Your task to perform on an android device: Go to Google Image 0: 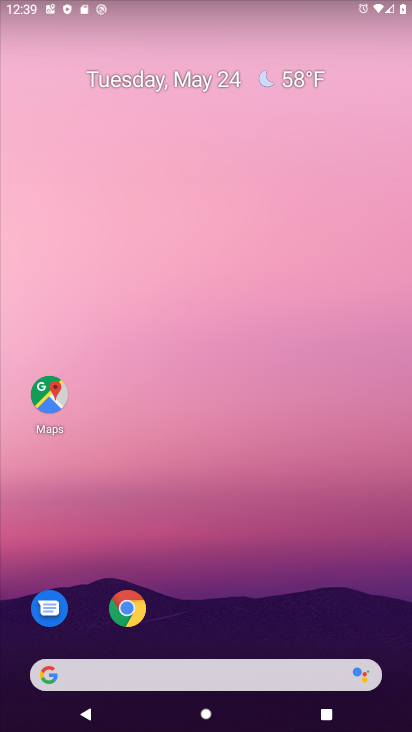
Step 0: drag from (265, 695) to (262, 85)
Your task to perform on an android device: Go to Google Image 1: 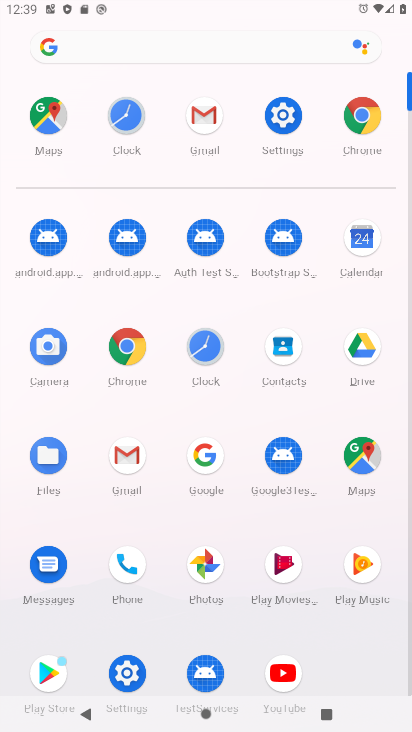
Step 1: click (48, 52)
Your task to perform on an android device: Go to Google Image 2: 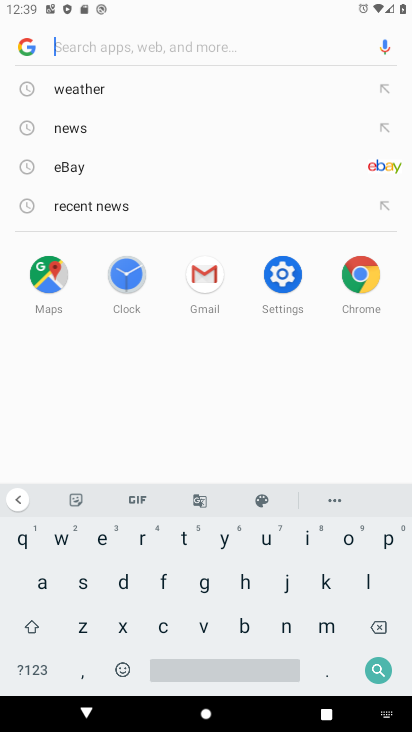
Step 2: click (32, 45)
Your task to perform on an android device: Go to Google Image 3: 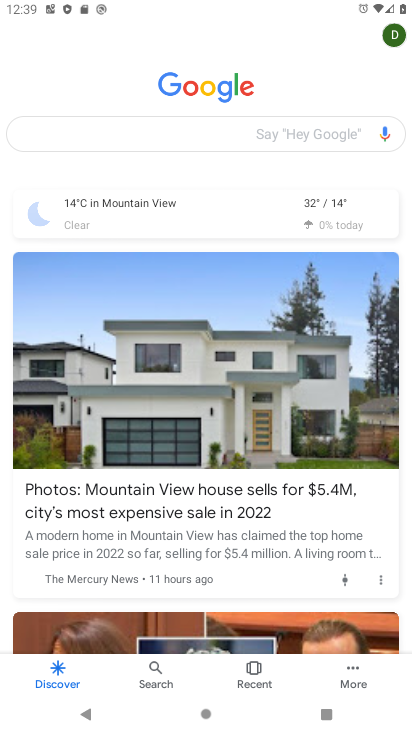
Step 3: task complete